Your task to perform on an android device: Show me the alarms in the clock app Image 0: 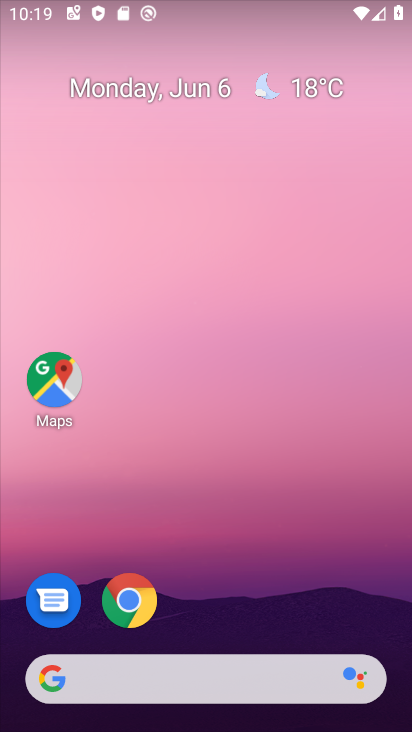
Step 0: drag from (225, 591) to (185, 37)
Your task to perform on an android device: Show me the alarms in the clock app Image 1: 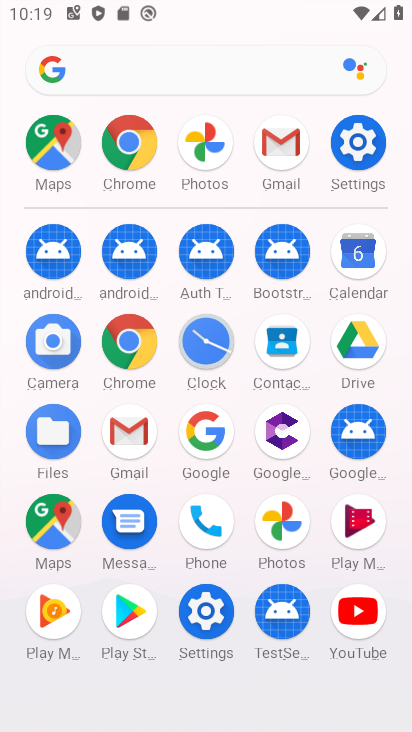
Step 1: click (207, 345)
Your task to perform on an android device: Show me the alarms in the clock app Image 2: 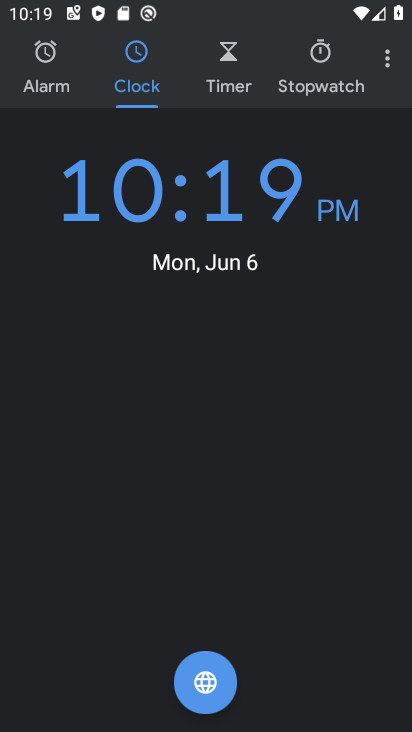
Step 2: drag from (380, 46) to (331, 114)
Your task to perform on an android device: Show me the alarms in the clock app Image 3: 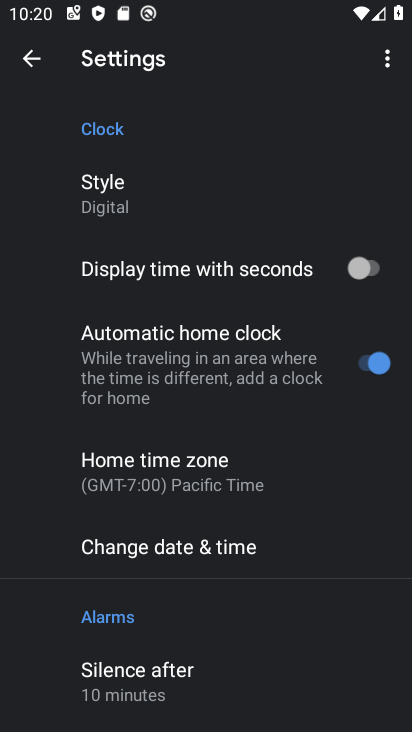
Step 3: click (159, 208)
Your task to perform on an android device: Show me the alarms in the clock app Image 4: 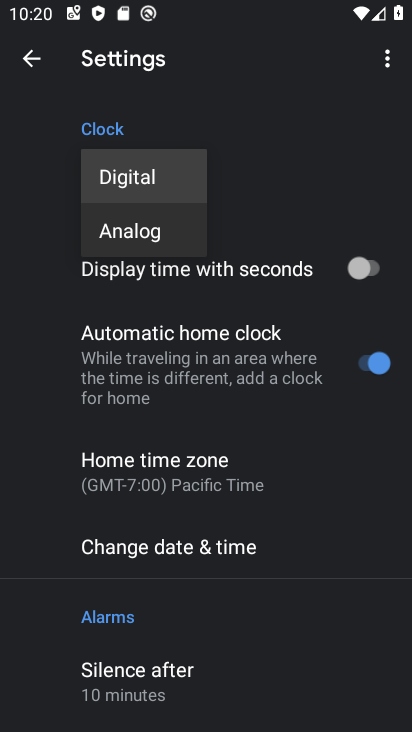
Step 4: click (11, 195)
Your task to perform on an android device: Show me the alarms in the clock app Image 5: 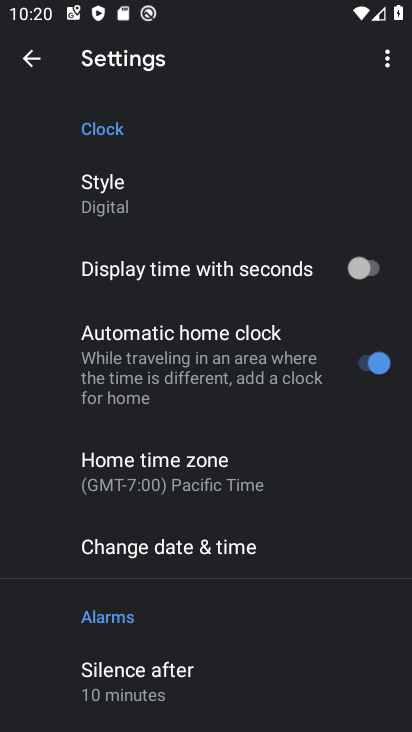
Step 5: click (28, 60)
Your task to perform on an android device: Show me the alarms in the clock app Image 6: 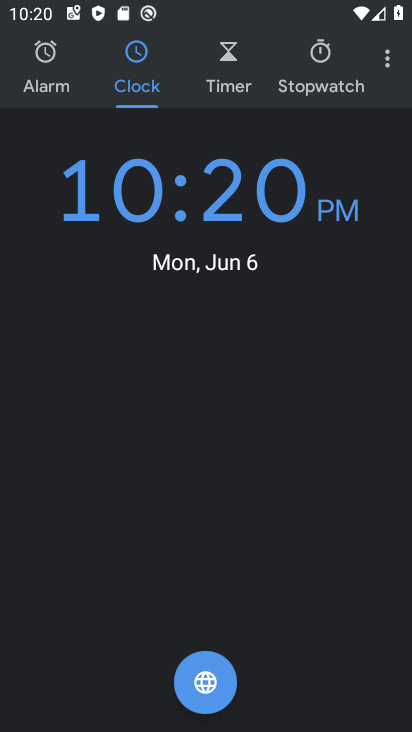
Step 6: click (43, 63)
Your task to perform on an android device: Show me the alarms in the clock app Image 7: 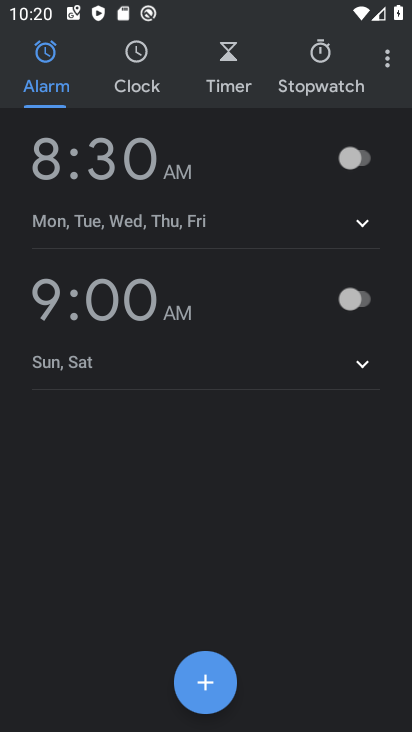
Step 7: task complete